Your task to perform on an android device: What is the news today? Image 0: 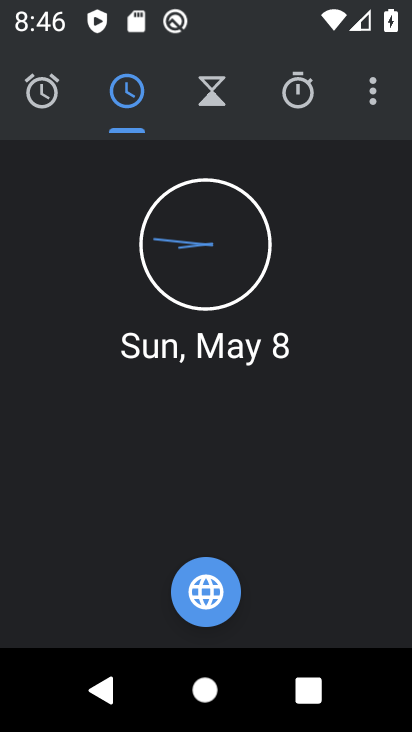
Step 0: press home button
Your task to perform on an android device: What is the news today? Image 1: 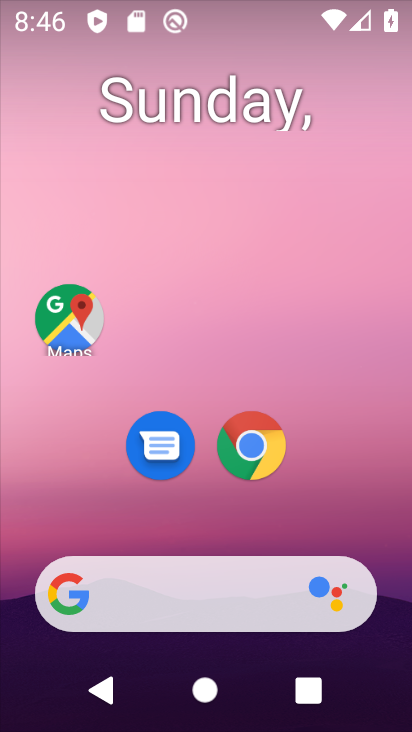
Step 1: click (328, 506)
Your task to perform on an android device: What is the news today? Image 2: 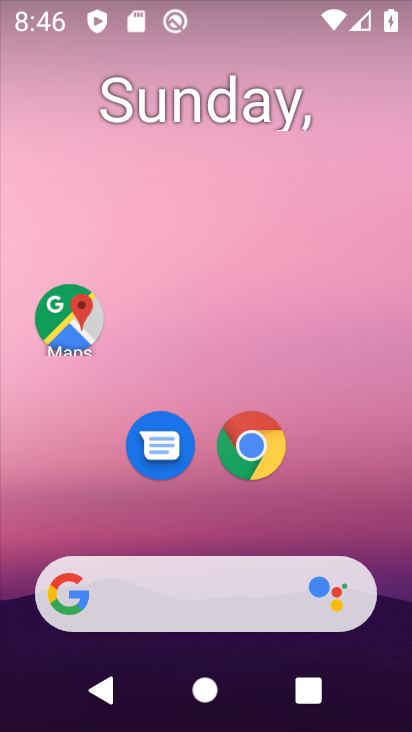
Step 2: drag from (237, 160) to (339, 273)
Your task to perform on an android device: What is the news today? Image 3: 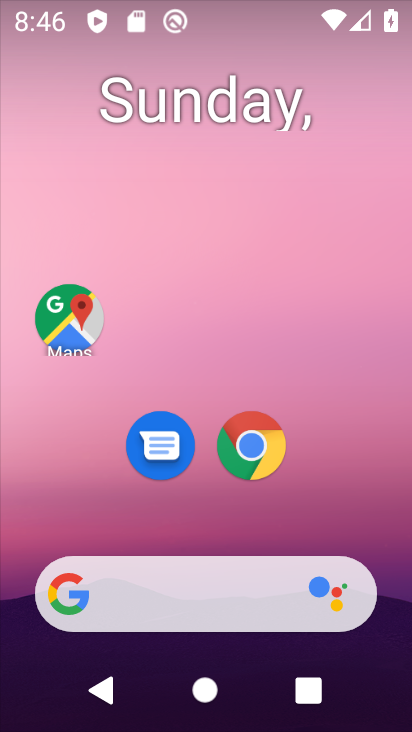
Step 3: drag from (11, 188) to (302, 273)
Your task to perform on an android device: What is the news today? Image 4: 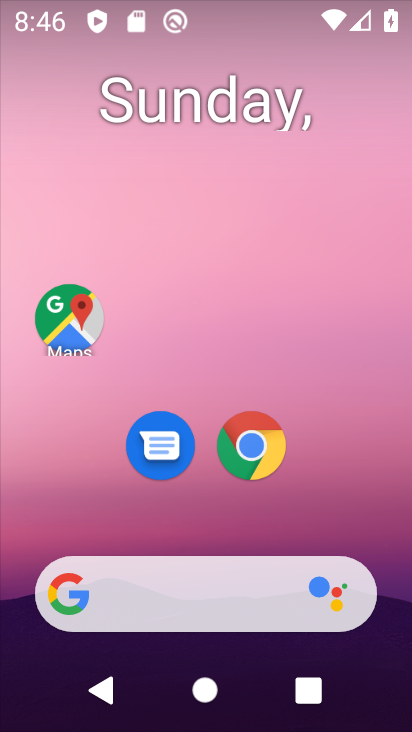
Step 4: drag from (37, 178) to (305, 195)
Your task to perform on an android device: What is the news today? Image 5: 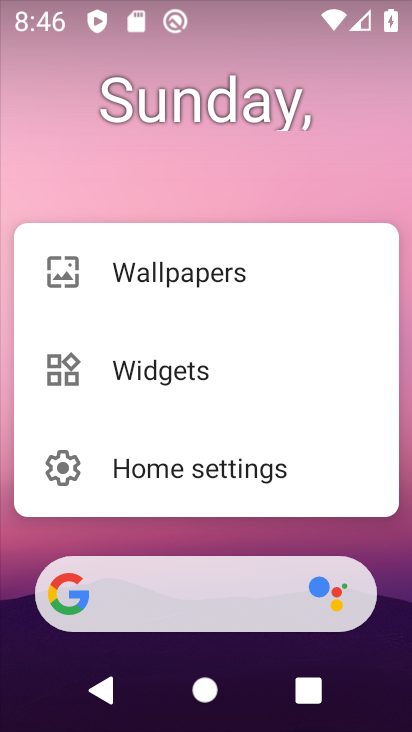
Step 5: click (38, 168)
Your task to perform on an android device: What is the news today? Image 6: 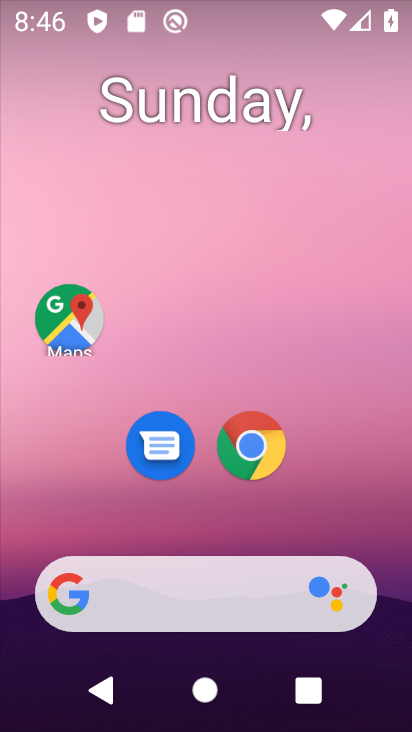
Step 6: task complete